Your task to perform on an android device: Open maps Image 0: 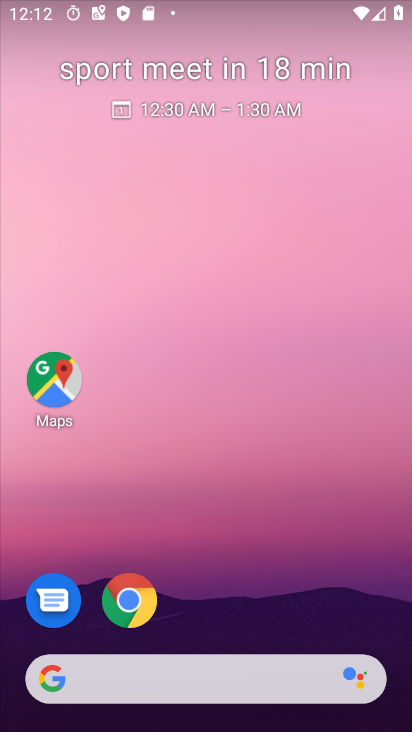
Step 0: click (256, 98)
Your task to perform on an android device: Open maps Image 1: 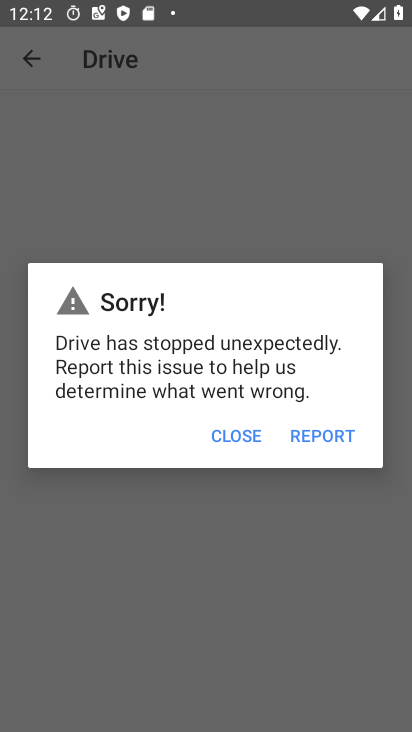
Step 1: press home button
Your task to perform on an android device: Open maps Image 2: 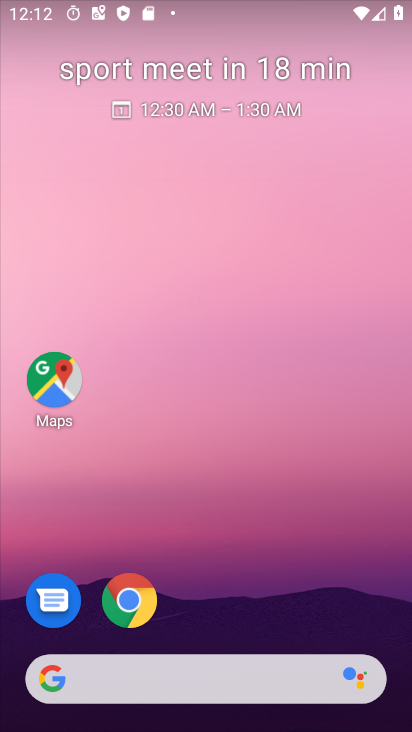
Step 2: click (57, 395)
Your task to perform on an android device: Open maps Image 3: 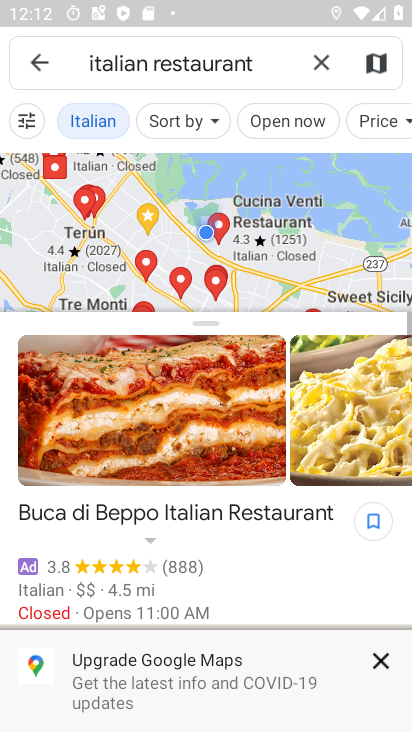
Step 3: task complete